Your task to perform on an android device: open a bookmark in the chrome app Image 0: 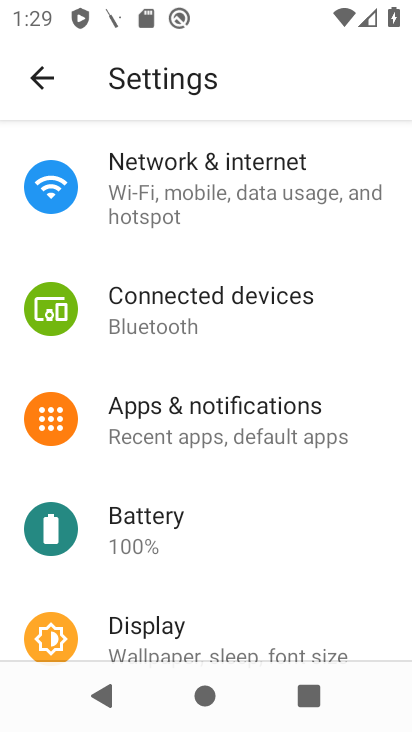
Step 0: press home button
Your task to perform on an android device: open a bookmark in the chrome app Image 1: 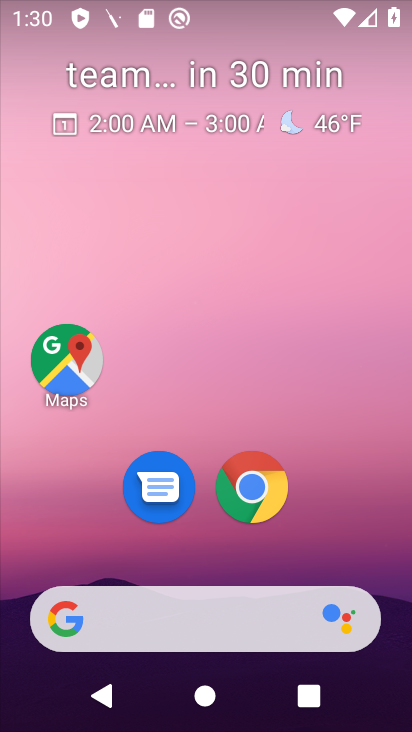
Step 1: click (257, 496)
Your task to perform on an android device: open a bookmark in the chrome app Image 2: 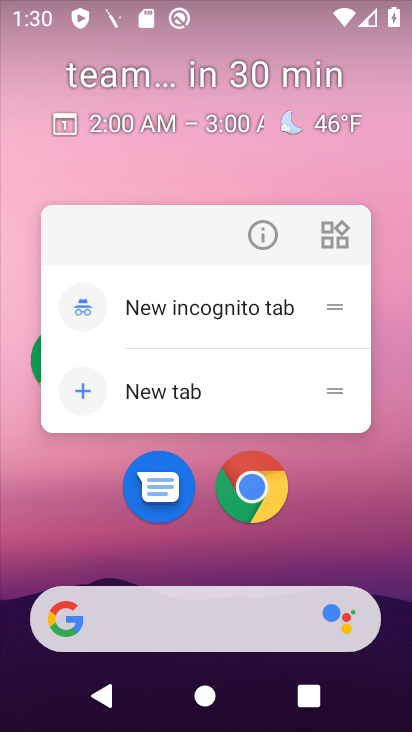
Step 2: click (257, 490)
Your task to perform on an android device: open a bookmark in the chrome app Image 3: 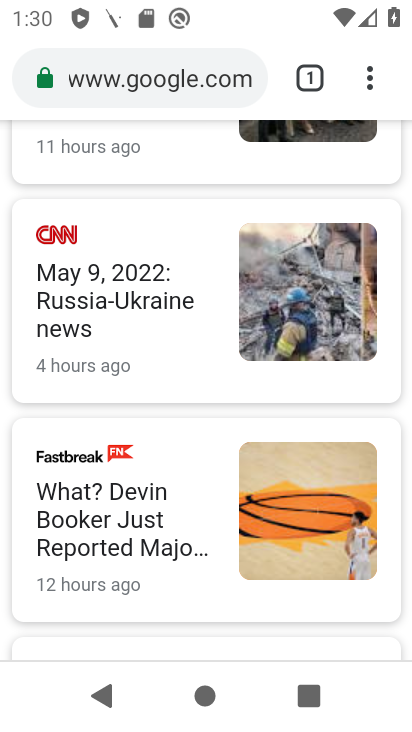
Step 3: task complete